Your task to perform on an android device: Go to internet settings Image 0: 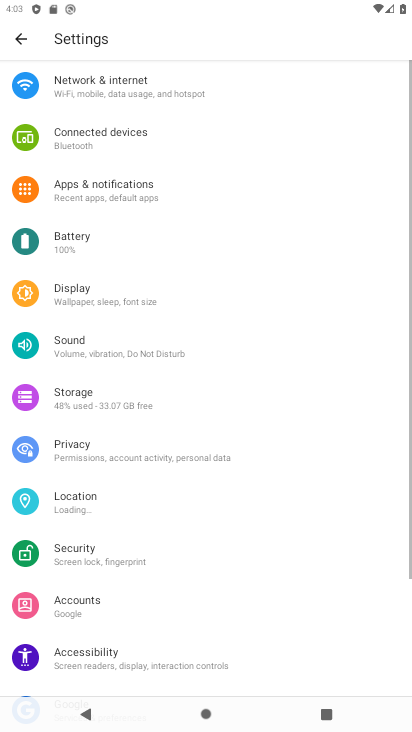
Step 0: press home button
Your task to perform on an android device: Go to internet settings Image 1: 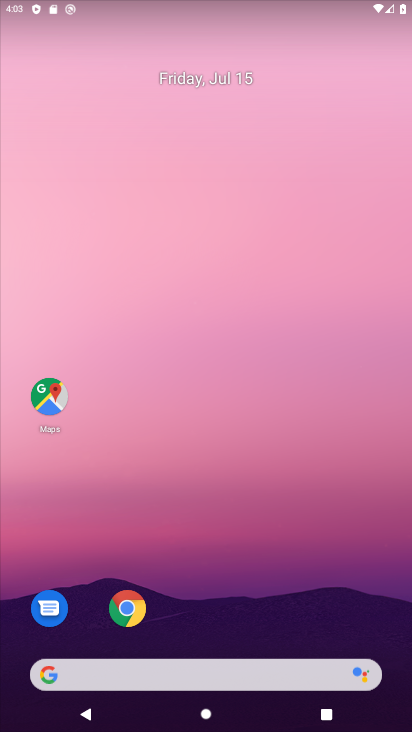
Step 1: drag from (251, 627) to (248, 21)
Your task to perform on an android device: Go to internet settings Image 2: 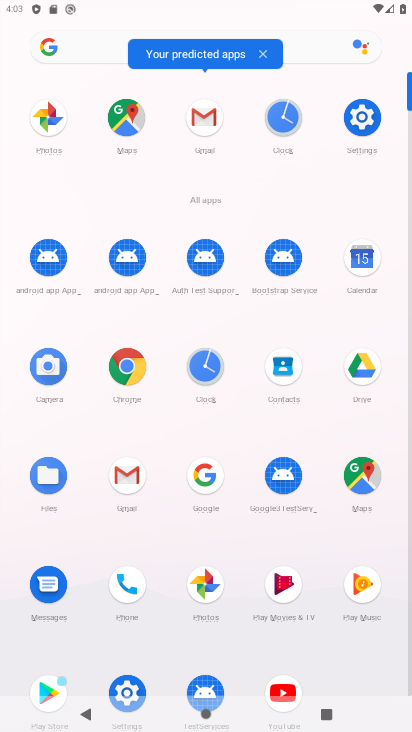
Step 2: click (126, 685)
Your task to perform on an android device: Go to internet settings Image 3: 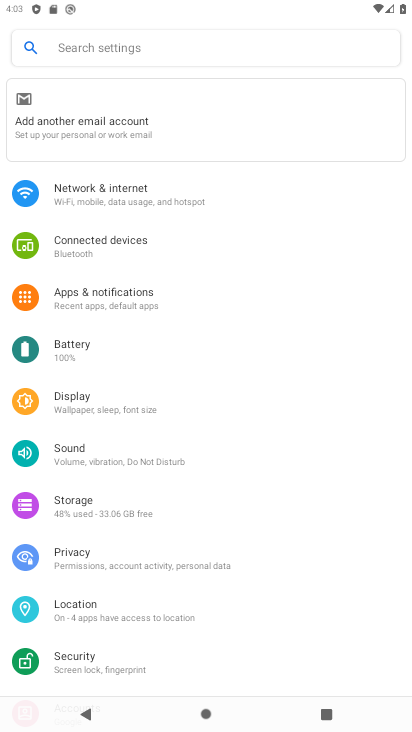
Step 3: click (143, 190)
Your task to perform on an android device: Go to internet settings Image 4: 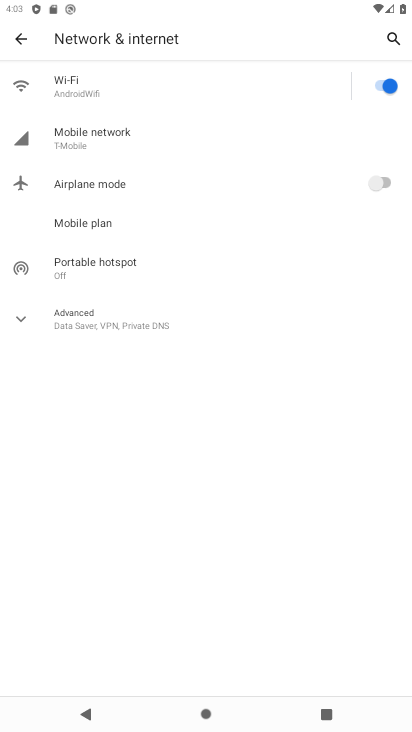
Step 4: task complete